Your task to perform on an android device: set an alarm Image 0: 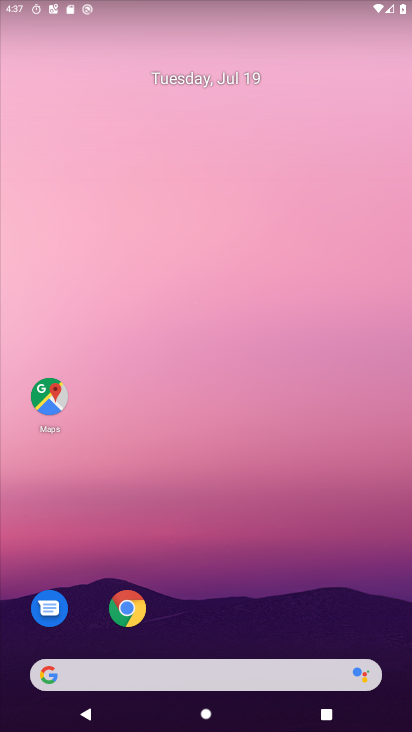
Step 0: drag from (148, 673) to (93, 18)
Your task to perform on an android device: set an alarm Image 1: 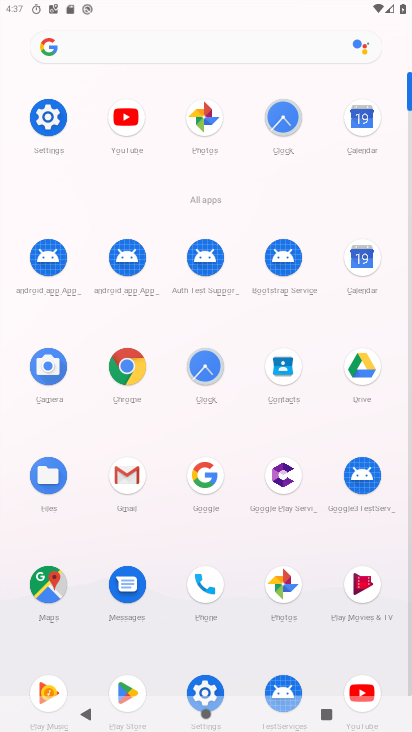
Step 1: click (283, 121)
Your task to perform on an android device: set an alarm Image 2: 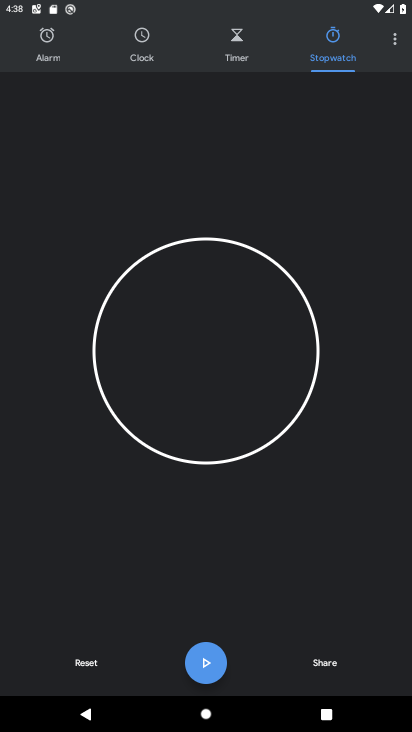
Step 2: click (45, 37)
Your task to perform on an android device: set an alarm Image 3: 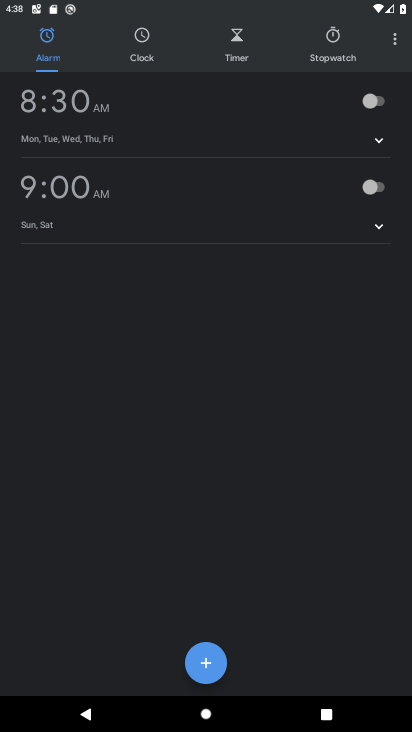
Step 3: click (208, 664)
Your task to perform on an android device: set an alarm Image 4: 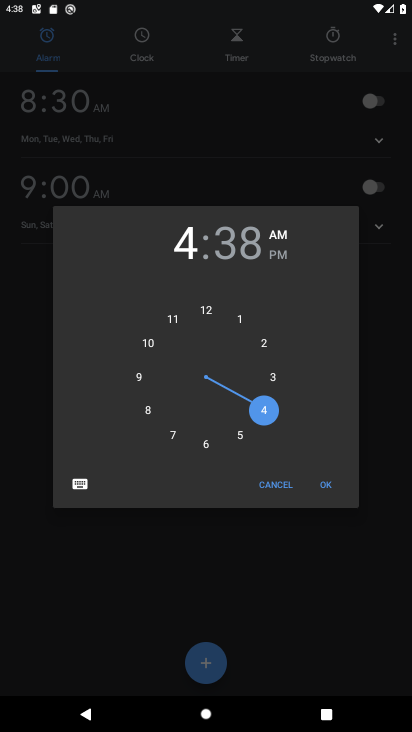
Step 4: click (142, 369)
Your task to perform on an android device: set an alarm Image 5: 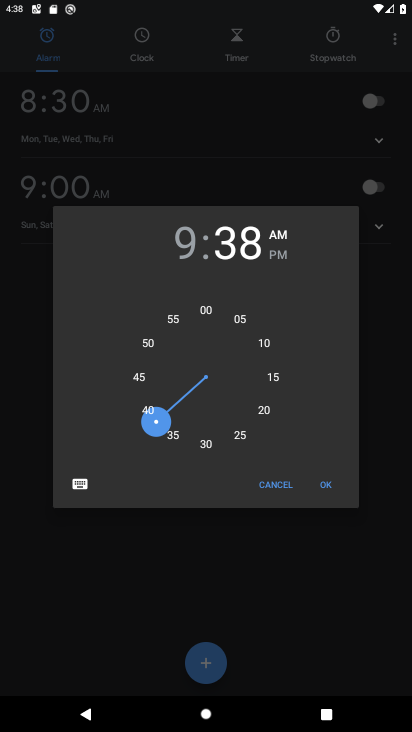
Step 5: click (236, 321)
Your task to perform on an android device: set an alarm Image 6: 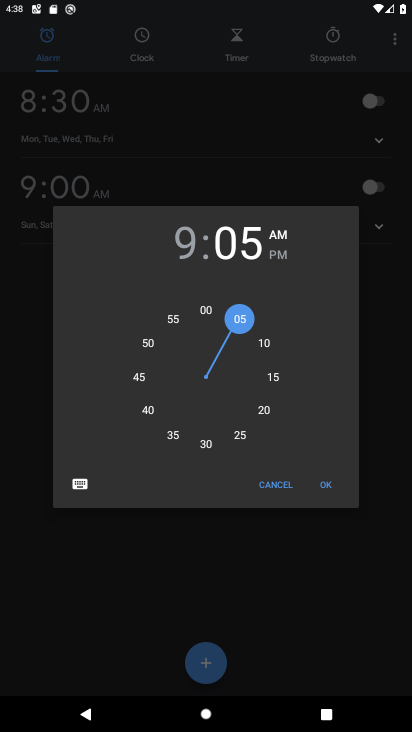
Step 6: click (328, 488)
Your task to perform on an android device: set an alarm Image 7: 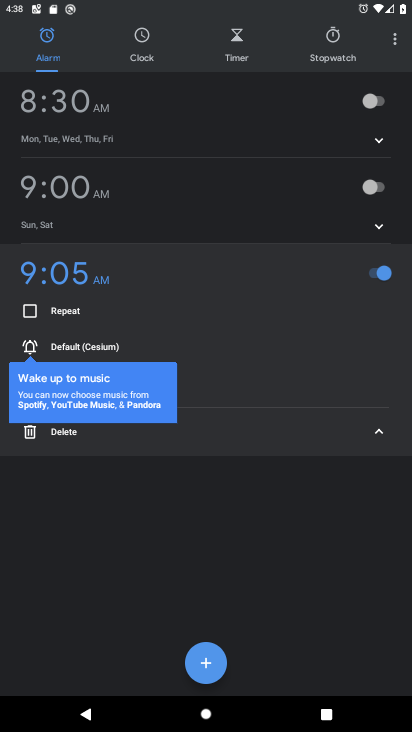
Step 7: click (380, 434)
Your task to perform on an android device: set an alarm Image 8: 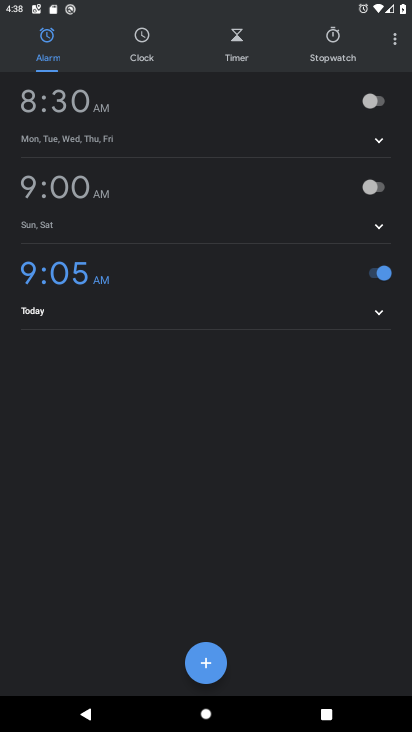
Step 8: task complete